Your task to perform on an android device: search for starred emails in the gmail app Image 0: 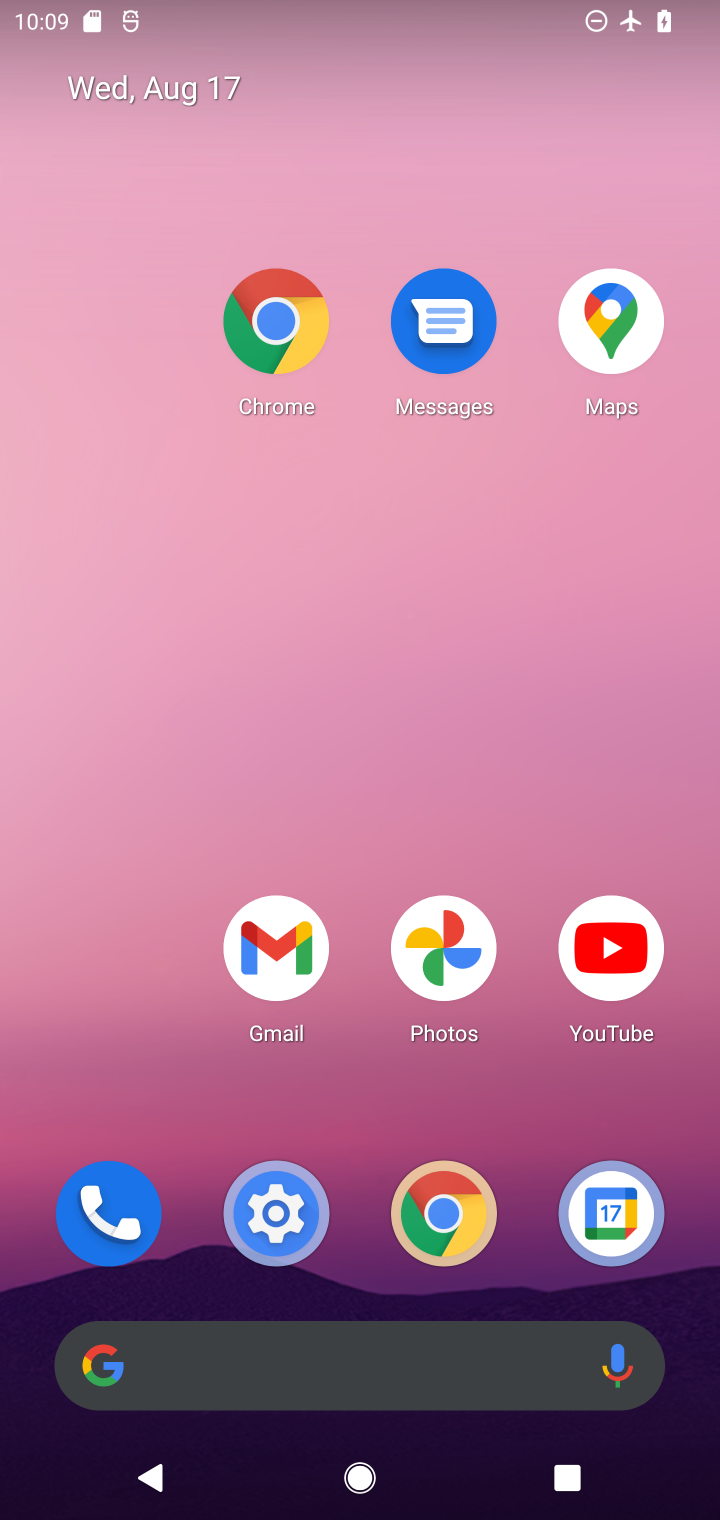
Step 0: click (313, 963)
Your task to perform on an android device: search for starred emails in the gmail app Image 1: 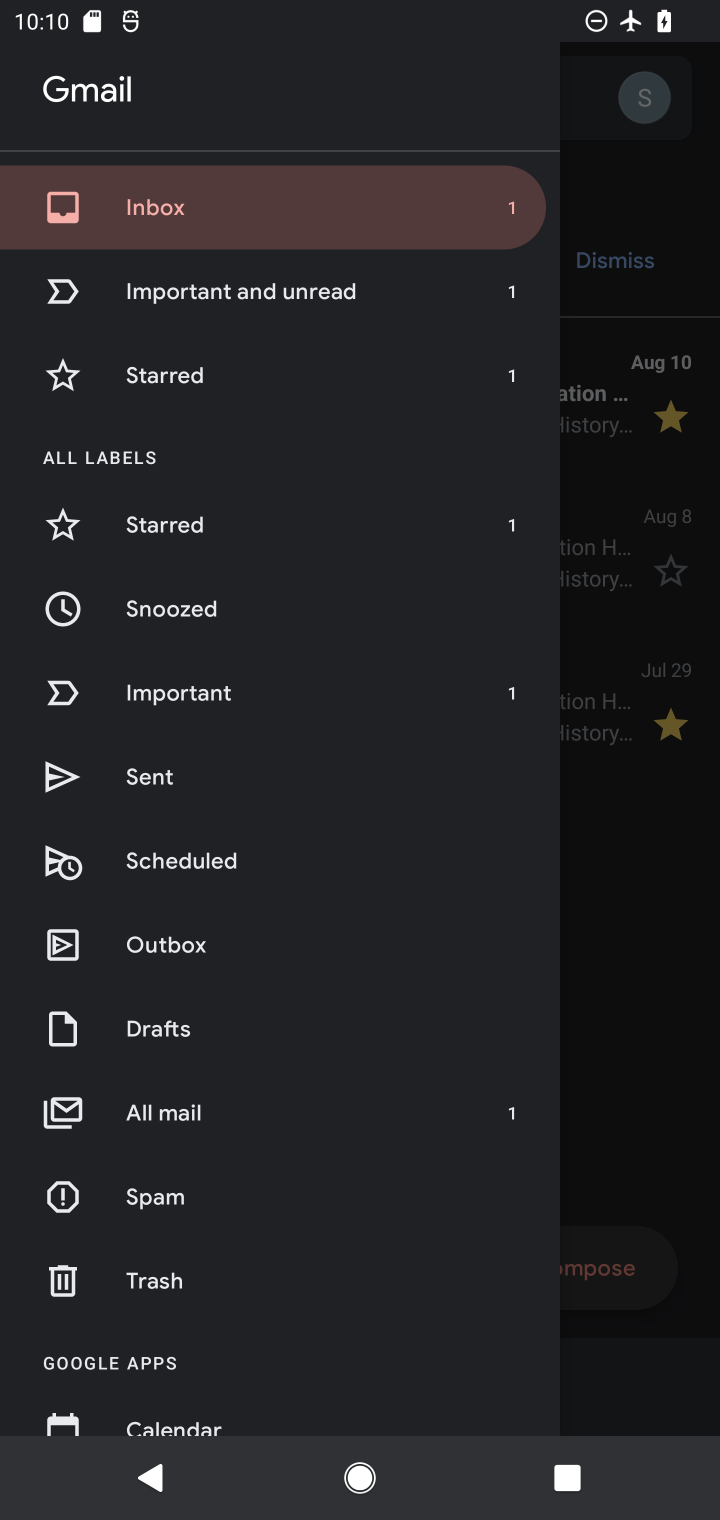
Step 1: click (158, 547)
Your task to perform on an android device: search for starred emails in the gmail app Image 2: 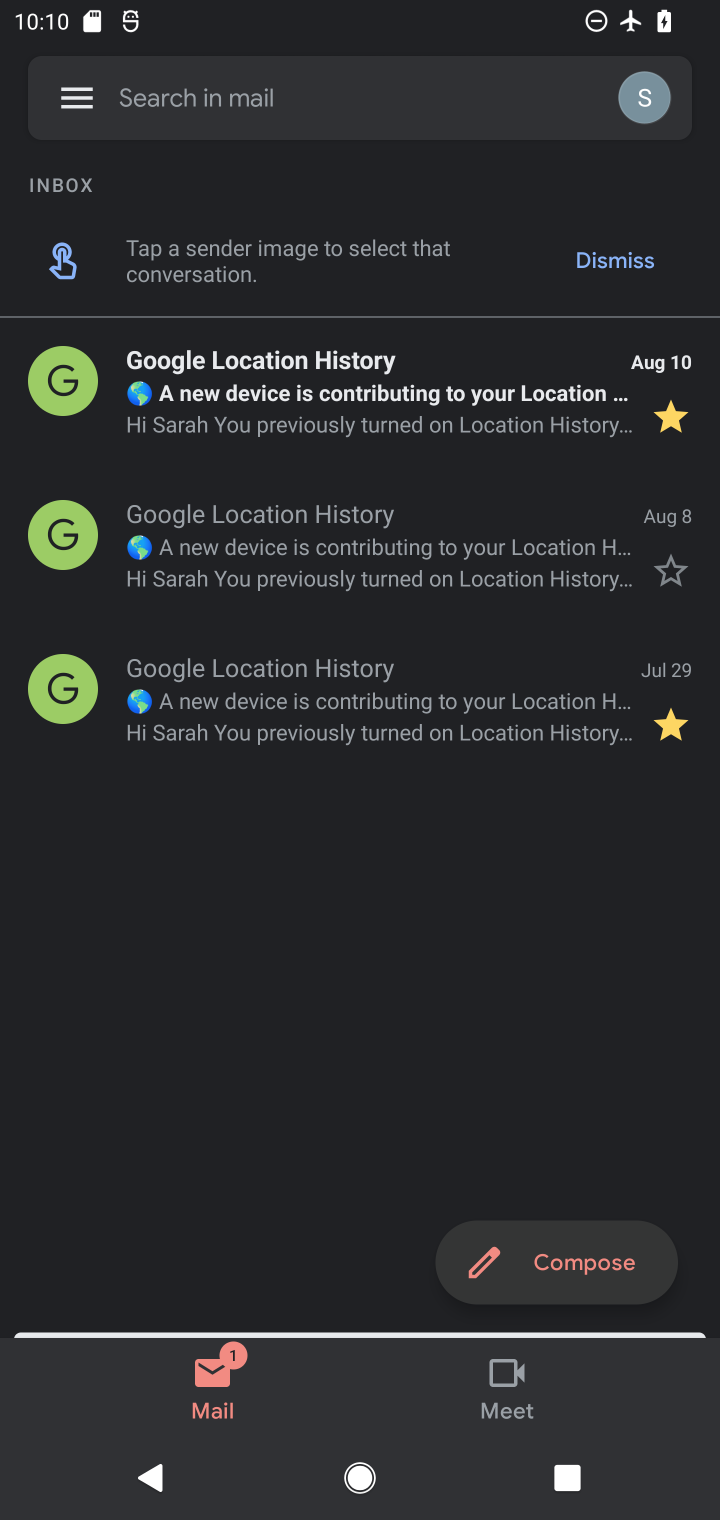
Step 2: task complete